Your task to perform on an android device: Open privacy settings Image 0: 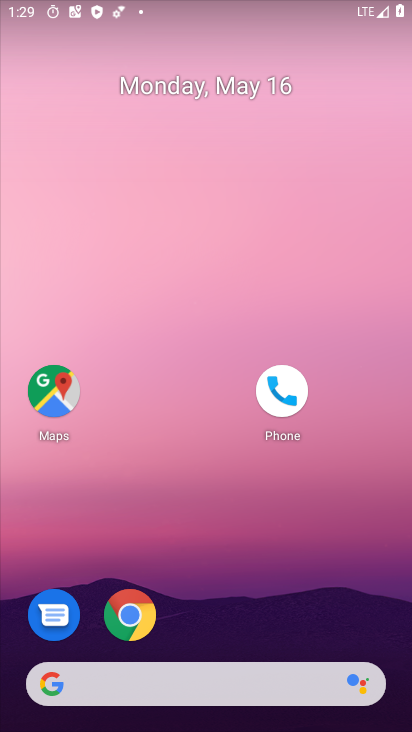
Step 0: drag from (292, 651) to (243, 72)
Your task to perform on an android device: Open privacy settings Image 1: 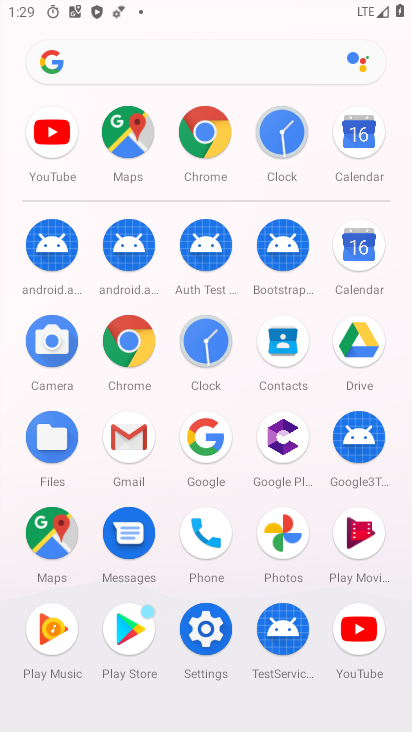
Step 1: click (227, 631)
Your task to perform on an android device: Open privacy settings Image 2: 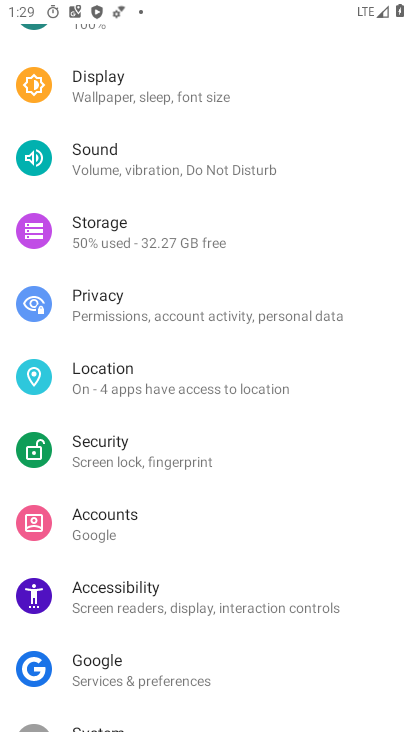
Step 2: click (124, 315)
Your task to perform on an android device: Open privacy settings Image 3: 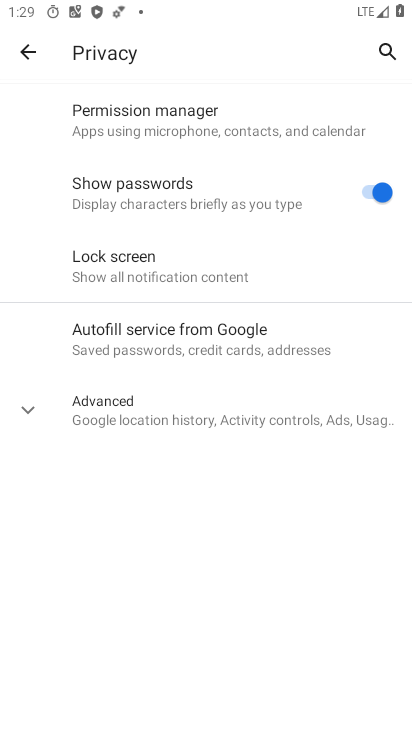
Step 3: task complete